Your task to perform on an android device: choose inbox layout in the gmail app Image 0: 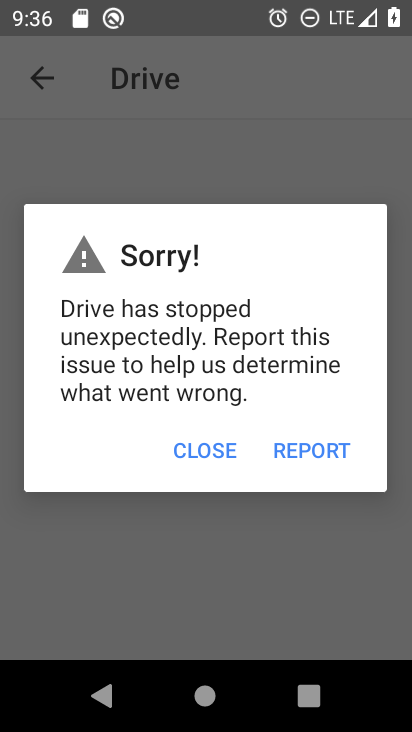
Step 0: press home button
Your task to perform on an android device: choose inbox layout in the gmail app Image 1: 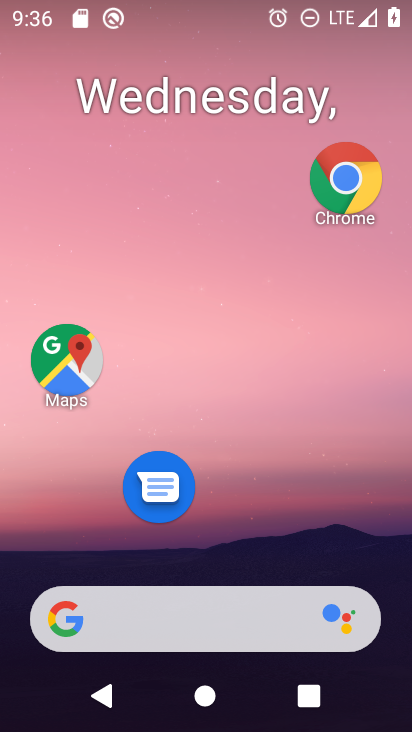
Step 1: drag from (205, 490) to (244, 92)
Your task to perform on an android device: choose inbox layout in the gmail app Image 2: 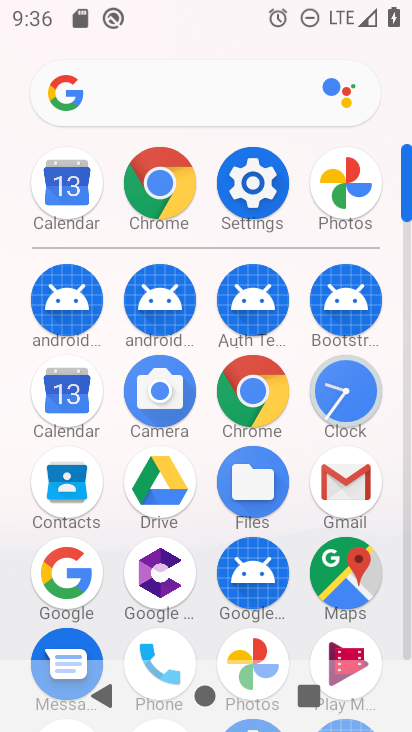
Step 2: click (357, 499)
Your task to perform on an android device: choose inbox layout in the gmail app Image 3: 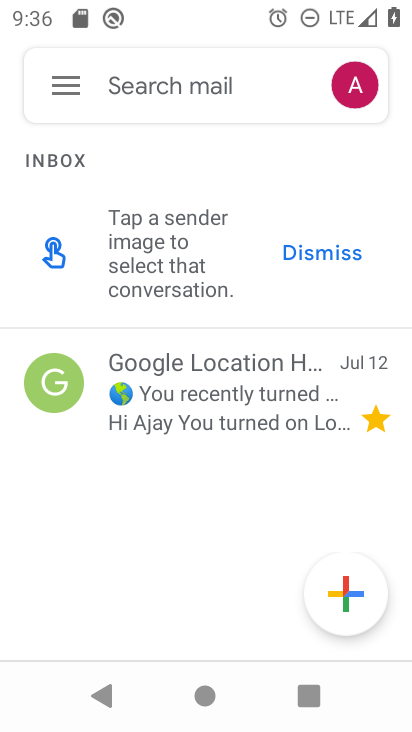
Step 3: click (72, 76)
Your task to perform on an android device: choose inbox layout in the gmail app Image 4: 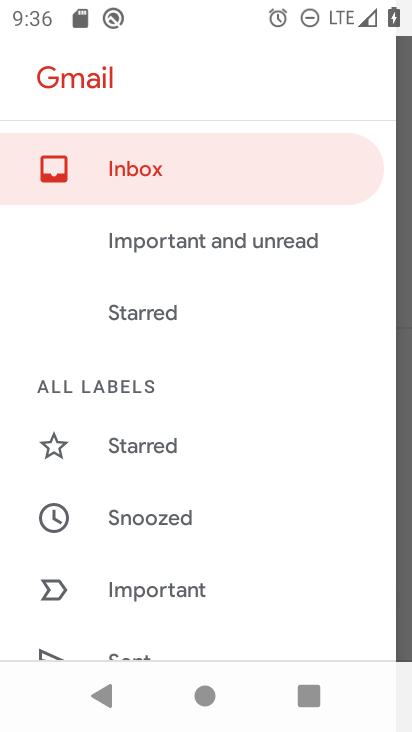
Step 4: task complete